Your task to perform on an android device: Check the news Image 0: 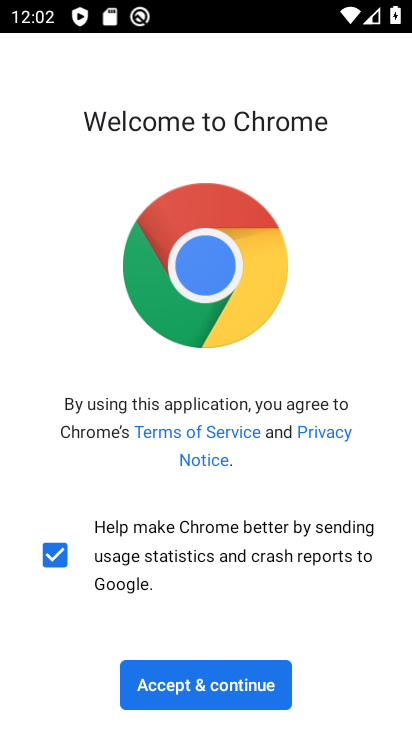
Step 0: press home button
Your task to perform on an android device: Check the news Image 1: 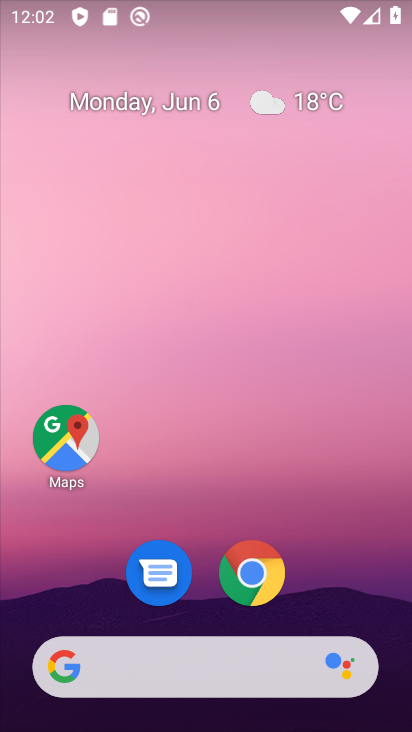
Step 1: task complete